Your task to perform on an android device: show emergency info Image 0: 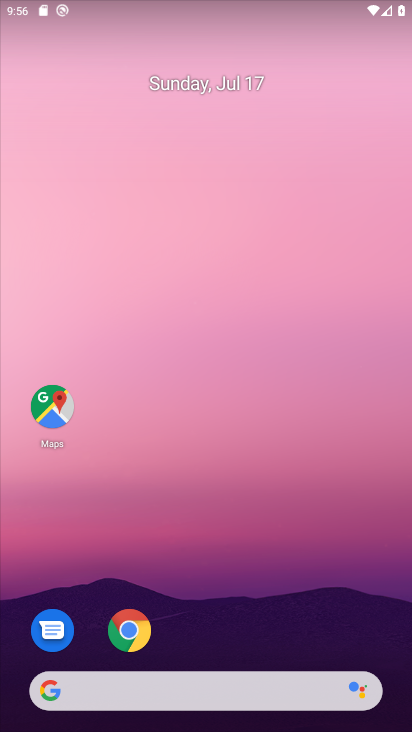
Step 0: drag from (278, 586) to (285, 21)
Your task to perform on an android device: show emergency info Image 1: 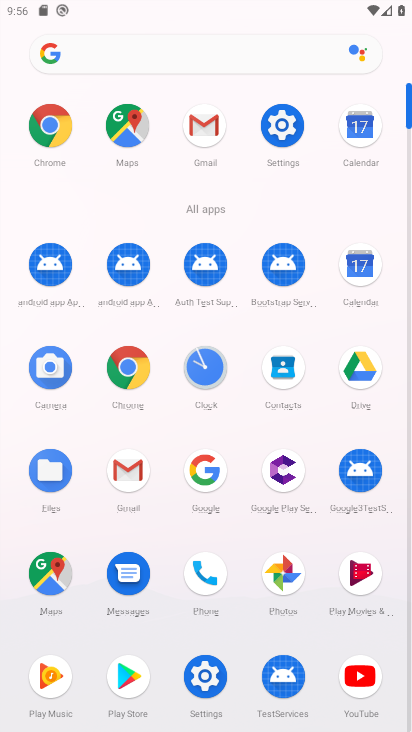
Step 1: click (209, 683)
Your task to perform on an android device: show emergency info Image 2: 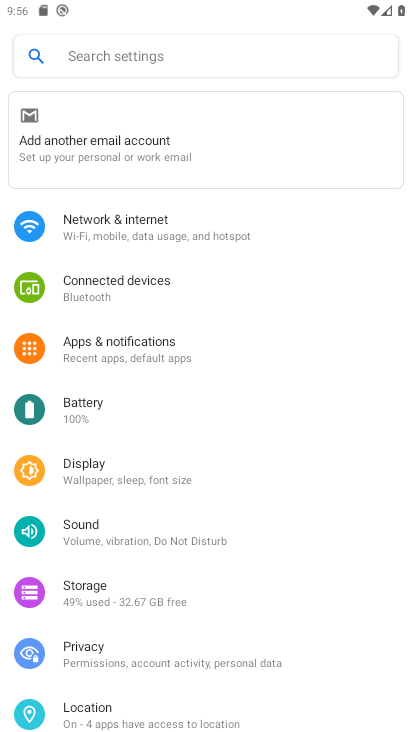
Step 2: drag from (206, 635) to (375, 13)
Your task to perform on an android device: show emergency info Image 3: 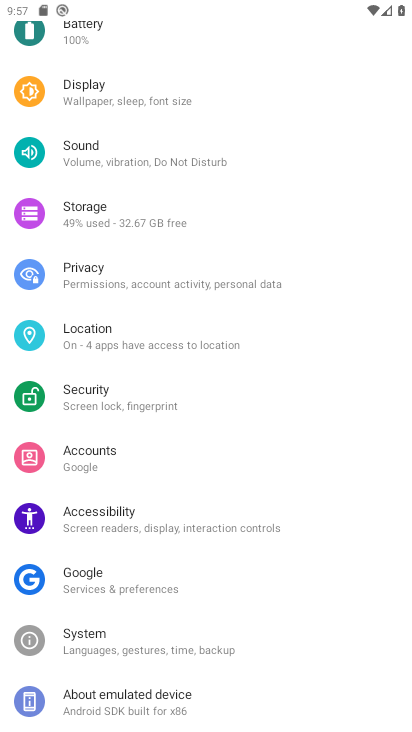
Step 3: drag from (89, 608) to (114, 439)
Your task to perform on an android device: show emergency info Image 4: 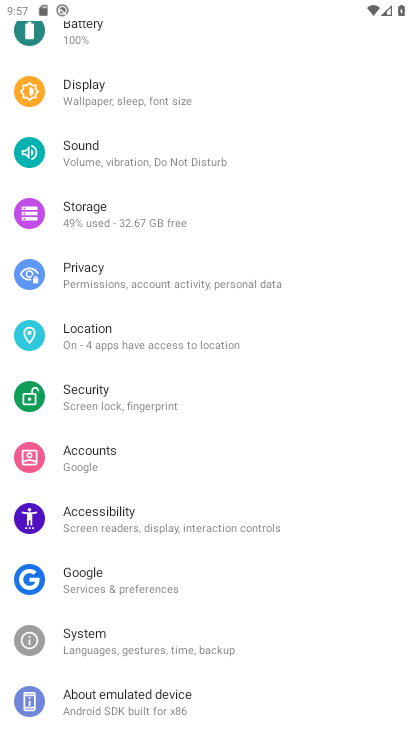
Step 4: click (137, 695)
Your task to perform on an android device: show emergency info Image 5: 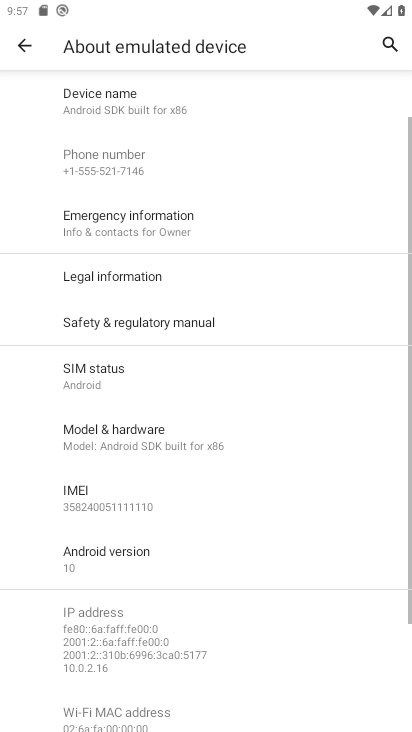
Step 5: click (131, 229)
Your task to perform on an android device: show emergency info Image 6: 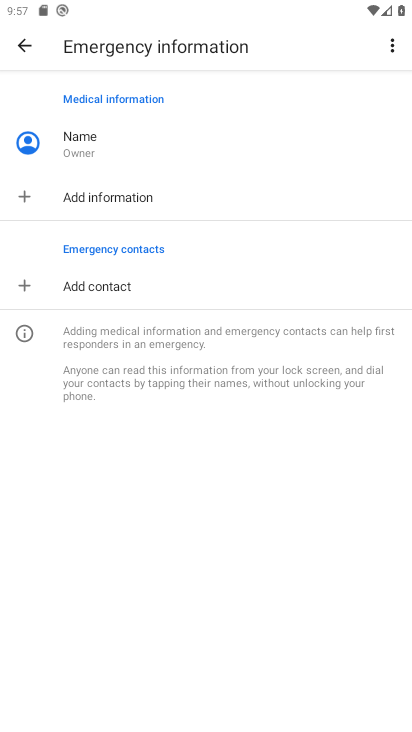
Step 6: task complete